Your task to perform on an android device: turn notification dots on Image 0: 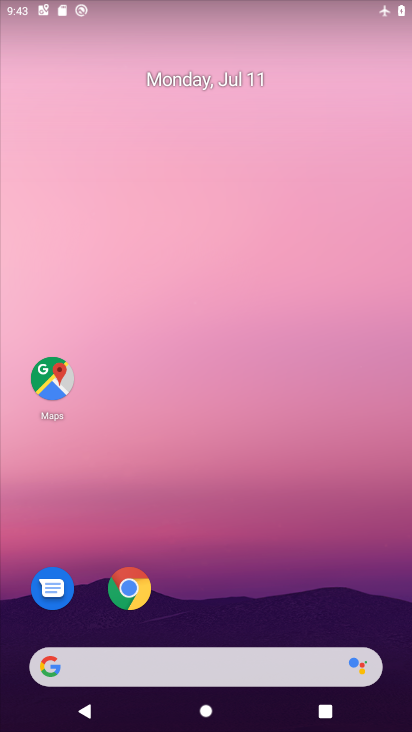
Step 0: drag from (199, 554) to (196, 233)
Your task to perform on an android device: turn notification dots on Image 1: 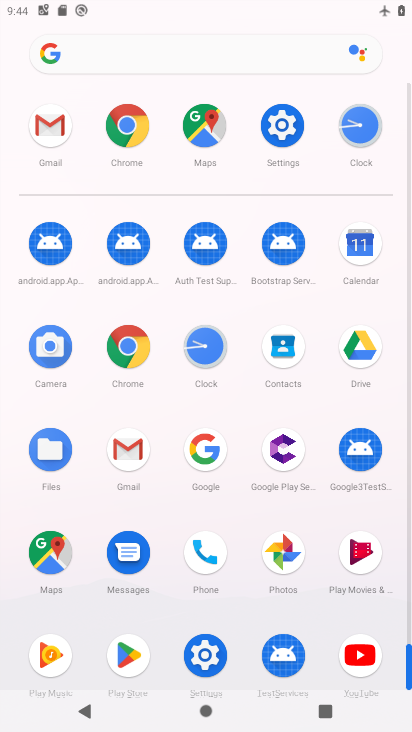
Step 1: click (287, 112)
Your task to perform on an android device: turn notification dots on Image 2: 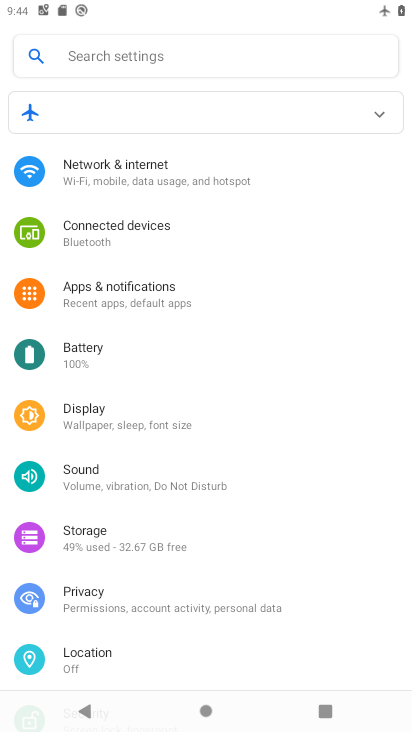
Step 2: click (175, 45)
Your task to perform on an android device: turn notification dots on Image 3: 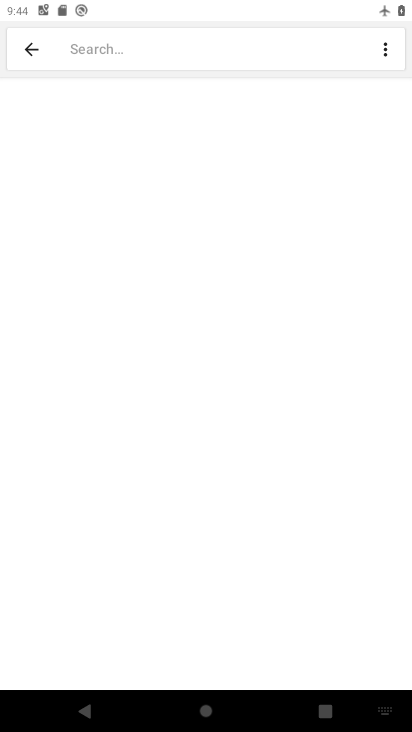
Step 3: type "notification dots "
Your task to perform on an android device: turn notification dots on Image 4: 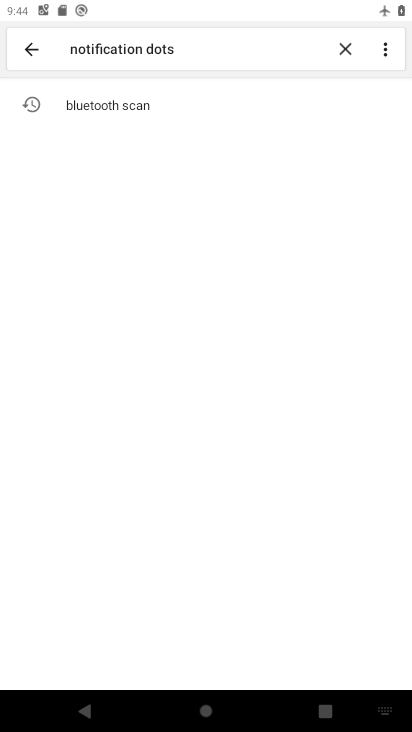
Step 4: click (101, 109)
Your task to perform on an android device: turn notification dots on Image 5: 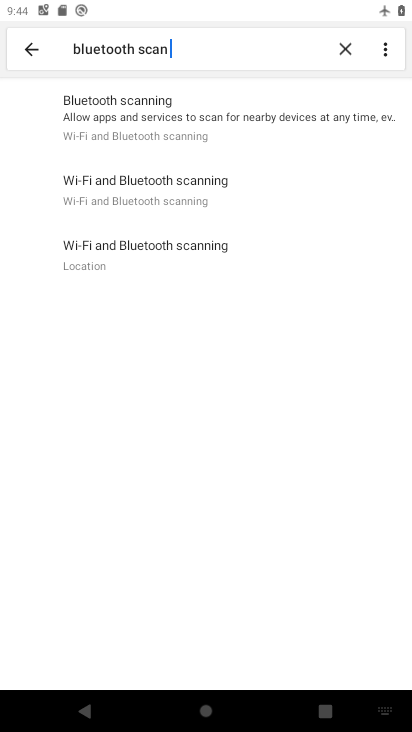
Step 5: click (340, 48)
Your task to perform on an android device: turn notification dots on Image 6: 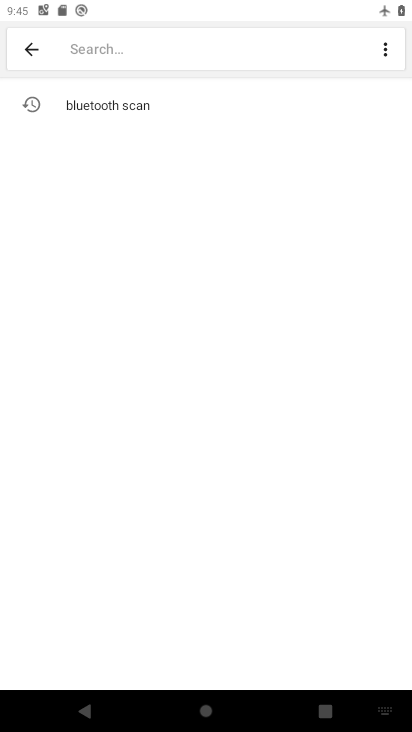
Step 6: click (162, 25)
Your task to perform on an android device: turn notification dots on Image 7: 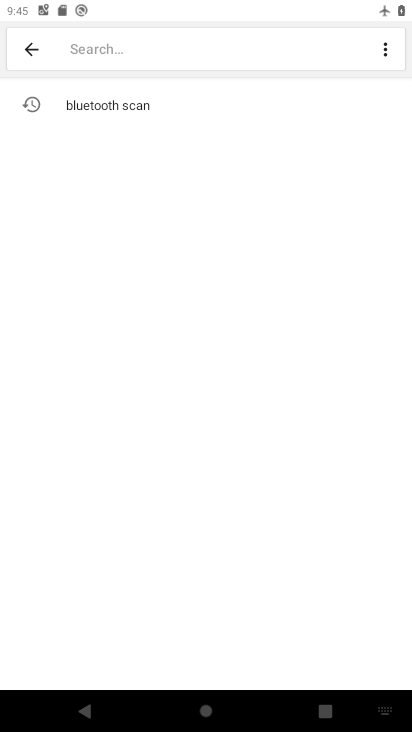
Step 7: click (164, 29)
Your task to perform on an android device: turn notification dots on Image 8: 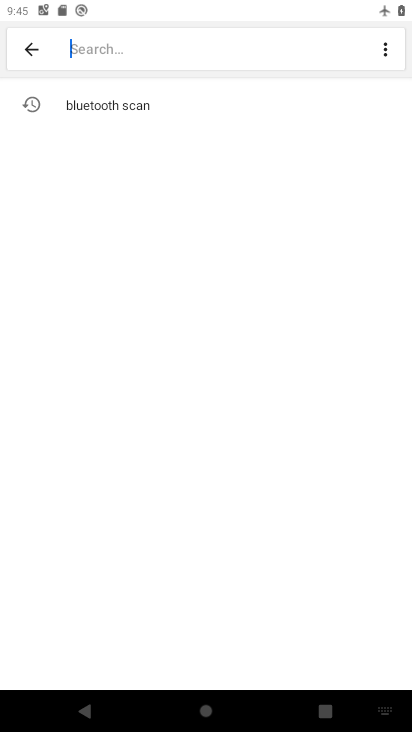
Step 8: type "notification dots "
Your task to perform on an android device: turn notification dots on Image 9: 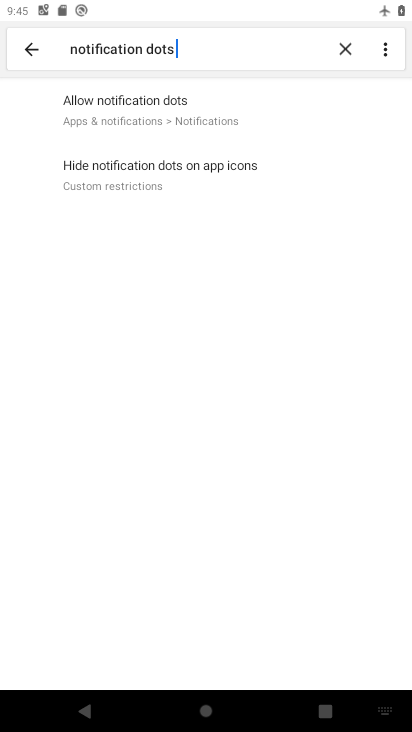
Step 9: click (179, 95)
Your task to perform on an android device: turn notification dots on Image 10: 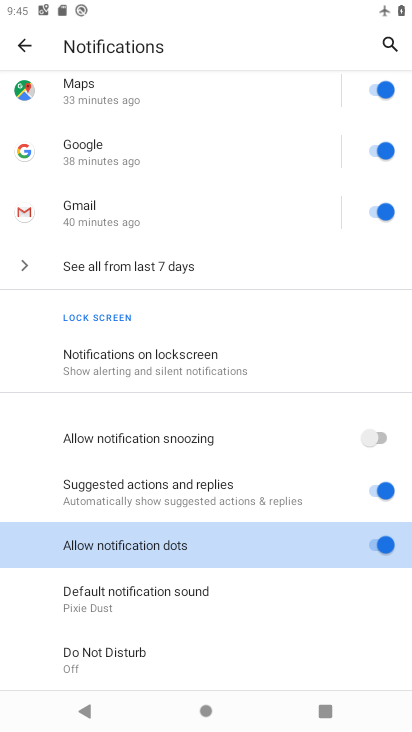
Step 10: task complete